Your task to perform on an android device: Open internet settings Image 0: 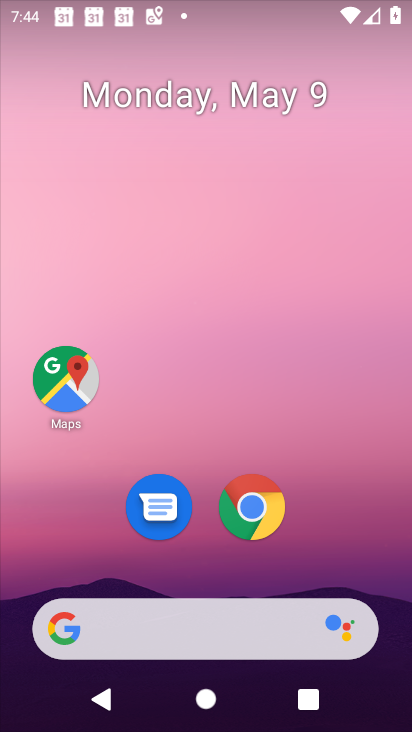
Step 0: drag from (253, 665) to (265, 151)
Your task to perform on an android device: Open internet settings Image 1: 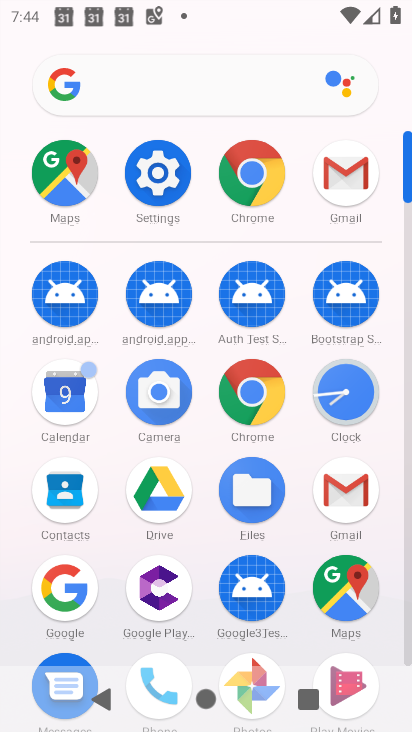
Step 1: click (174, 197)
Your task to perform on an android device: Open internet settings Image 2: 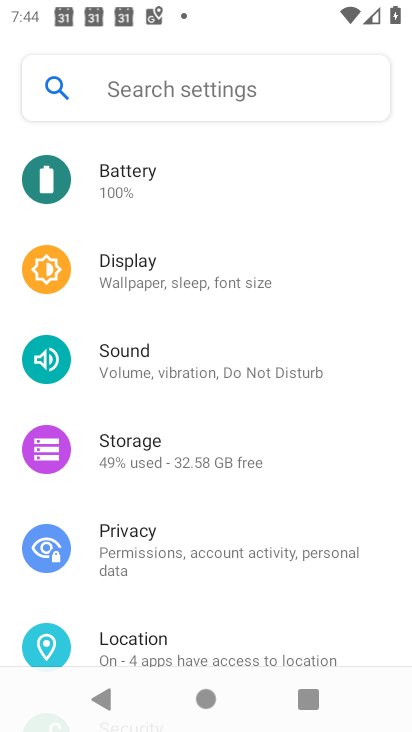
Step 2: drag from (183, 257) to (156, 467)
Your task to perform on an android device: Open internet settings Image 3: 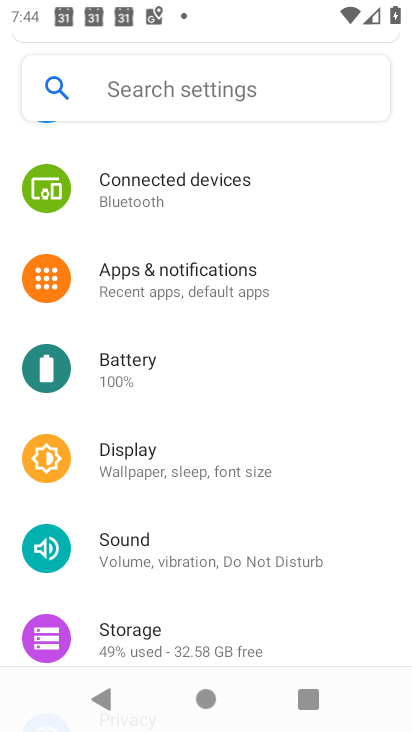
Step 3: drag from (164, 188) to (162, 255)
Your task to perform on an android device: Open internet settings Image 4: 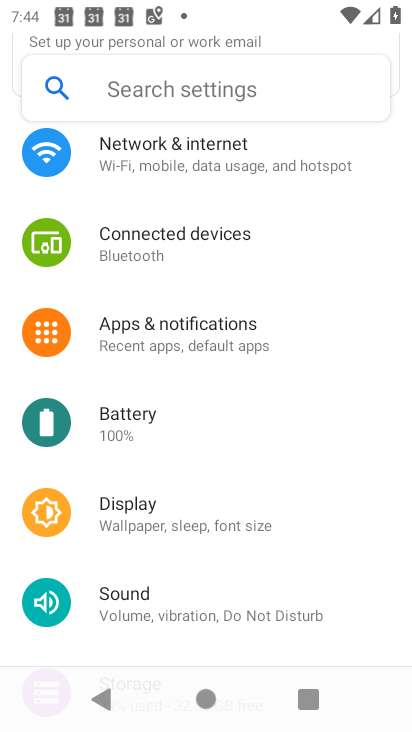
Step 4: click (178, 168)
Your task to perform on an android device: Open internet settings Image 5: 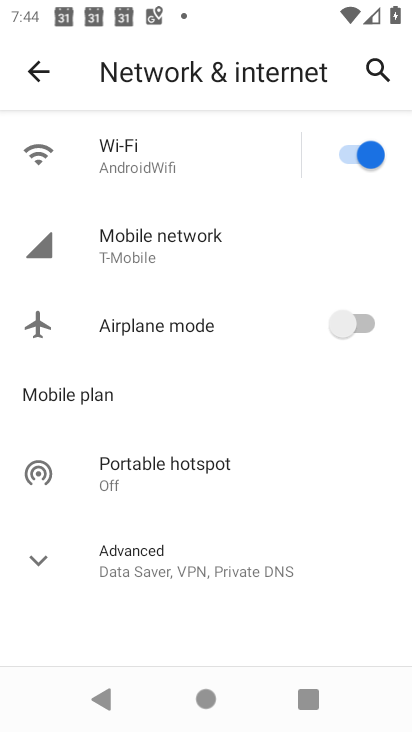
Step 5: task complete